Your task to perform on an android device: turn off sleep mode Image 0: 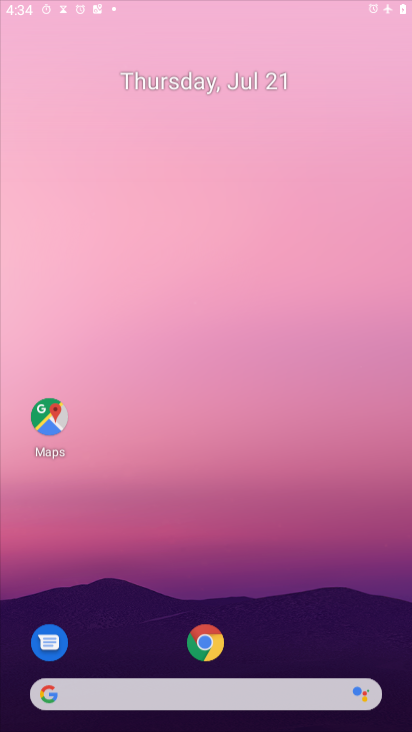
Step 0: press home button
Your task to perform on an android device: turn off sleep mode Image 1: 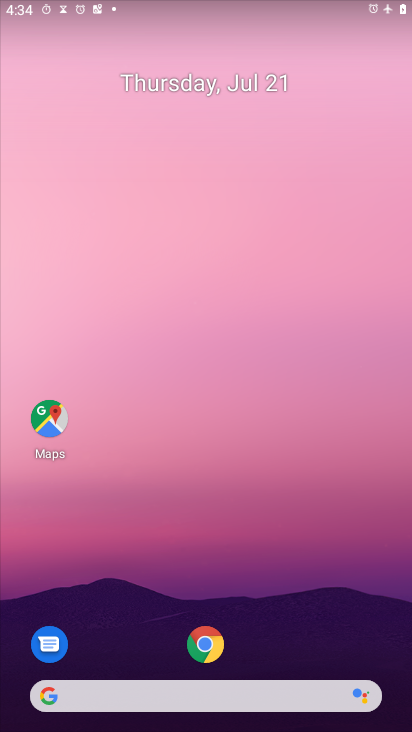
Step 1: drag from (300, 640) to (338, 0)
Your task to perform on an android device: turn off sleep mode Image 2: 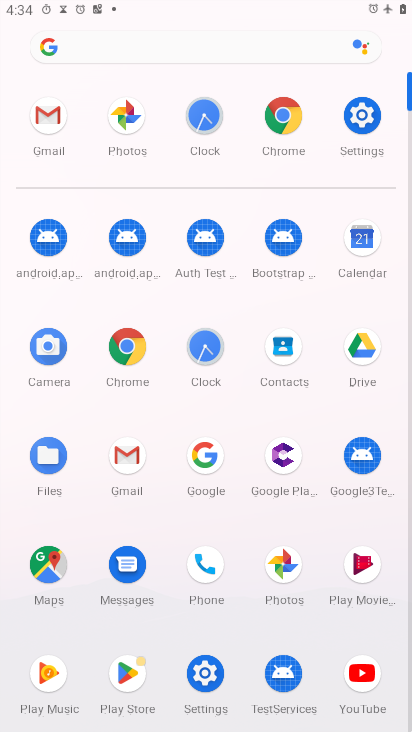
Step 2: click (361, 115)
Your task to perform on an android device: turn off sleep mode Image 3: 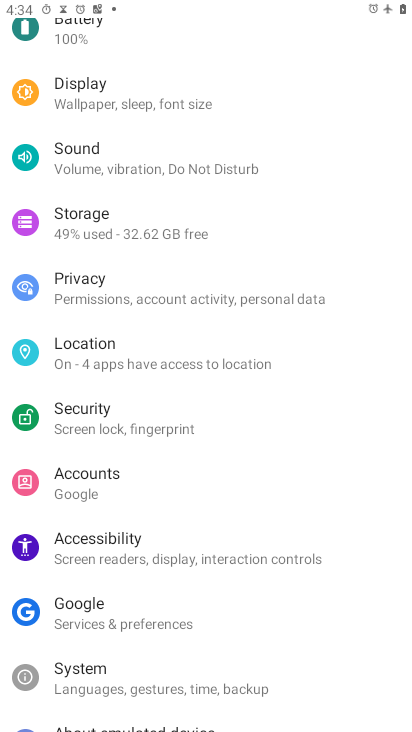
Step 3: click (86, 95)
Your task to perform on an android device: turn off sleep mode Image 4: 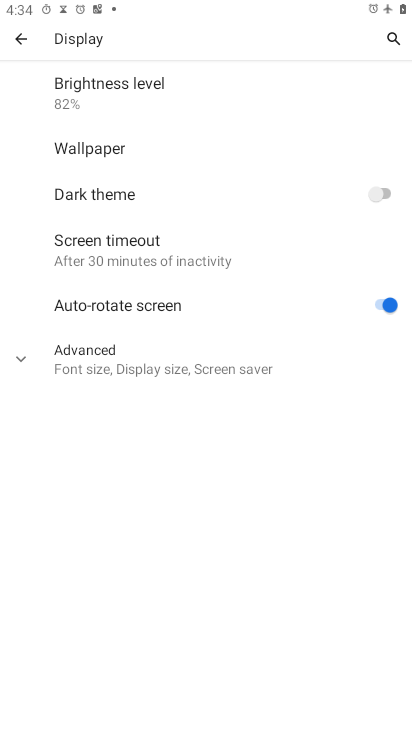
Step 4: task complete